Your task to perform on an android device: Add "logitech g903" to the cart on target, then select checkout. Image 0: 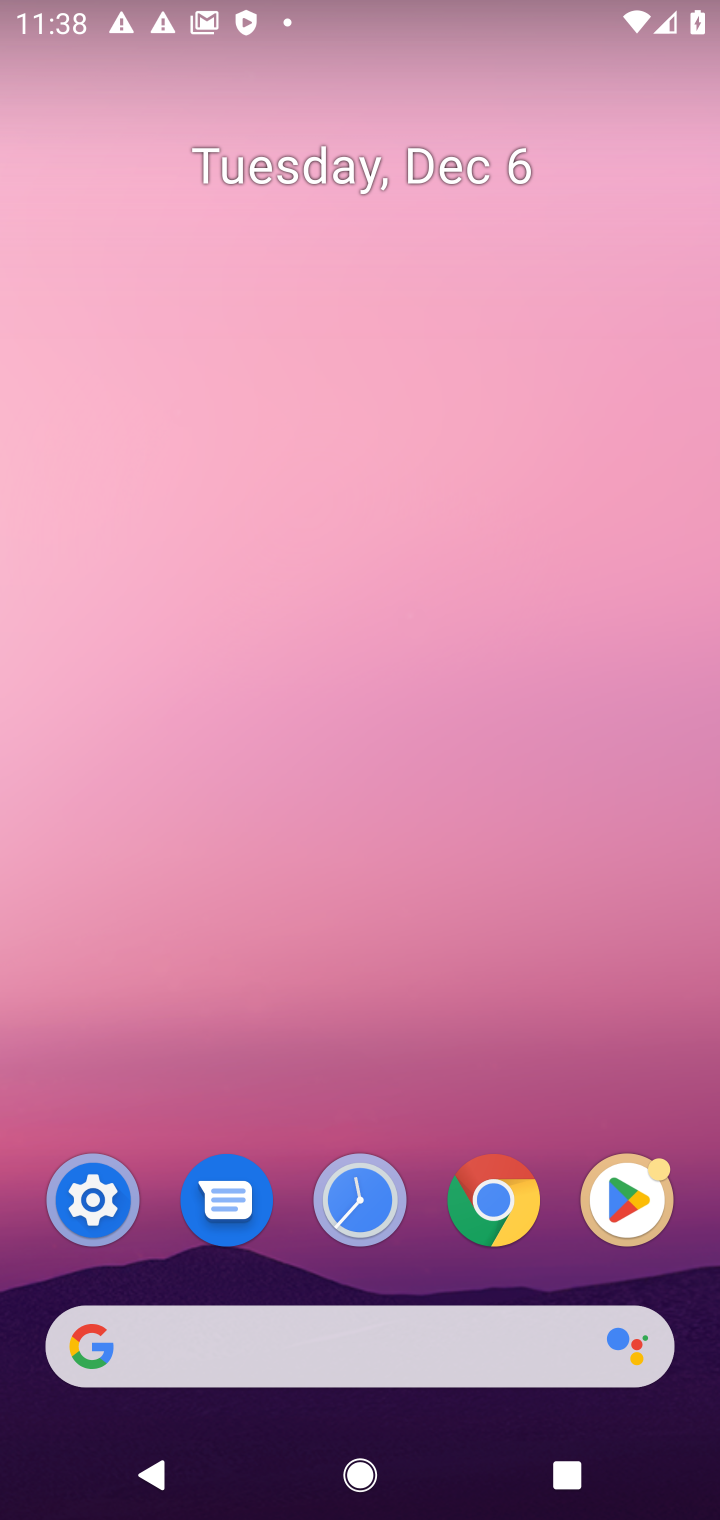
Step 0: click (316, 1365)
Your task to perform on an android device: Add "logitech g903" to the cart on target, then select checkout. Image 1: 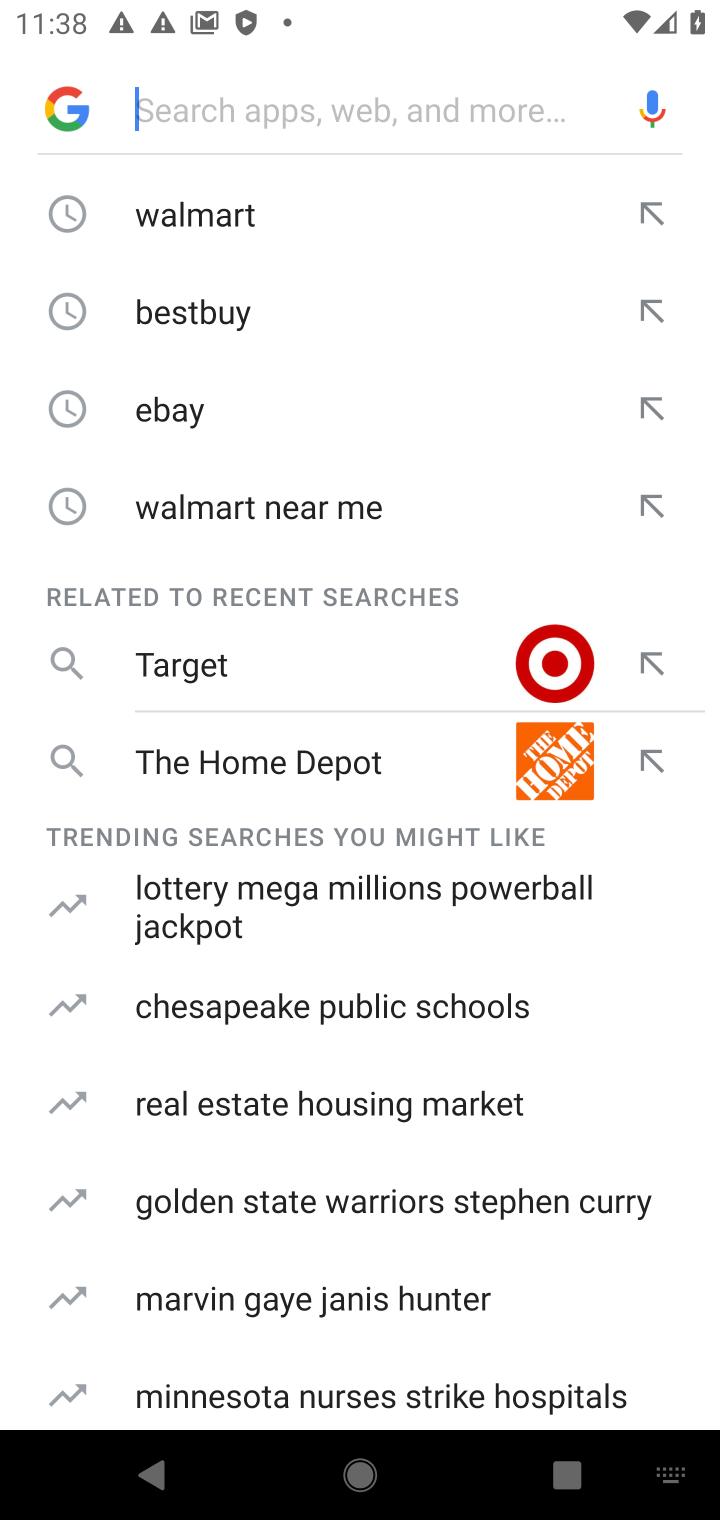
Step 1: type "target"
Your task to perform on an android device: Add "logitech g903" to the cart on target, then select checkout. Image 2: 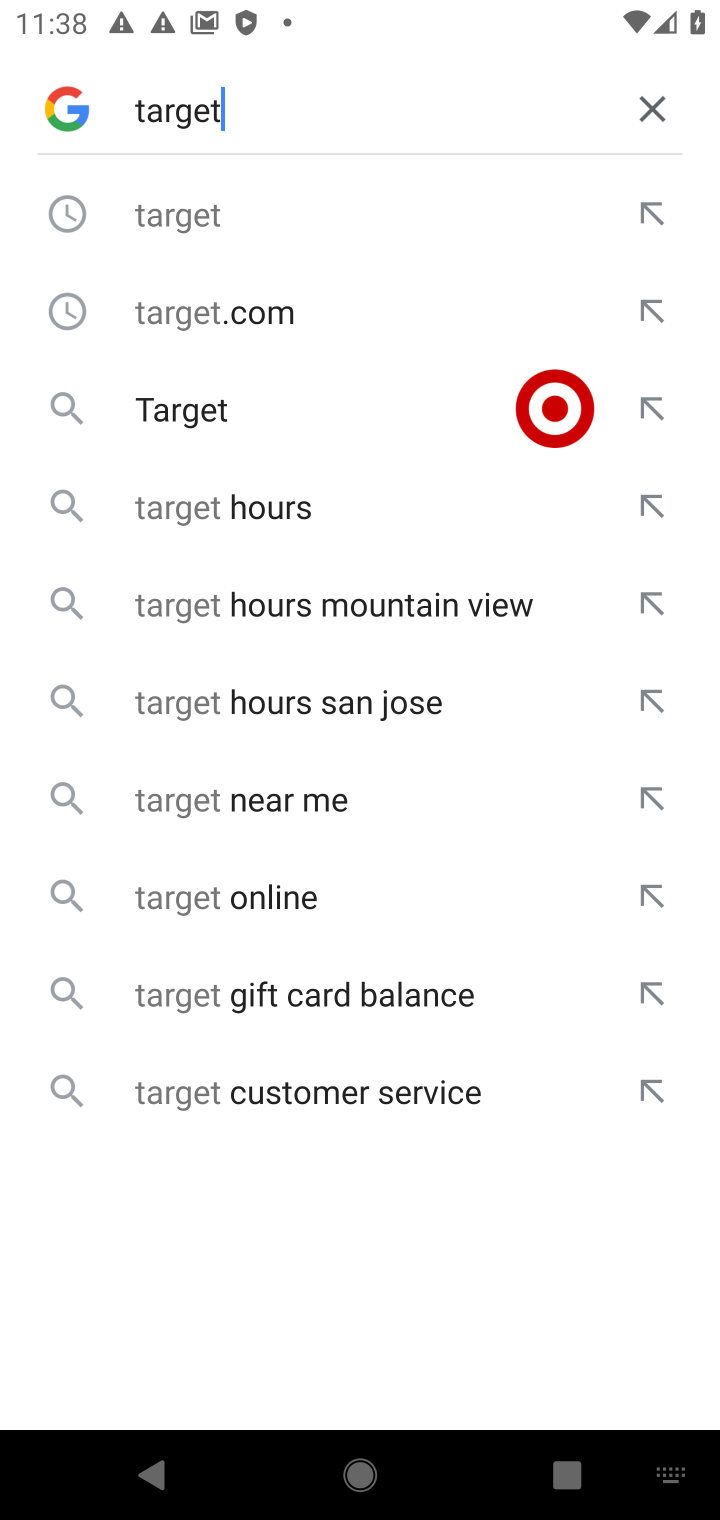
Step 2: click (357, 422)
Your task to perform on an android device: Add "logitech g903" to the cart on target, then select checkout. Image 3: 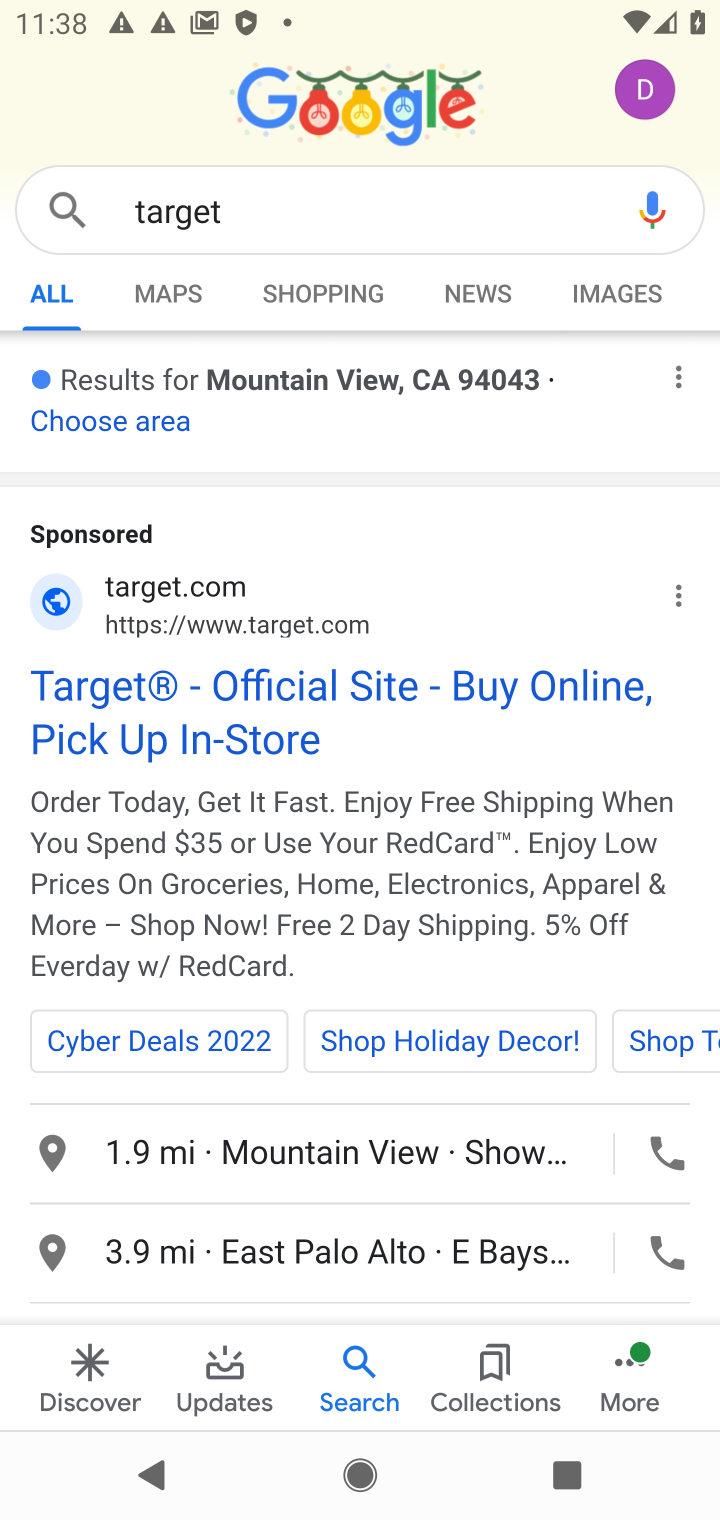
Step 3: click (260, 667)
Your task to perform on an android device: Add "logitech g903" to the cart on target, then select checkout. Image 4: 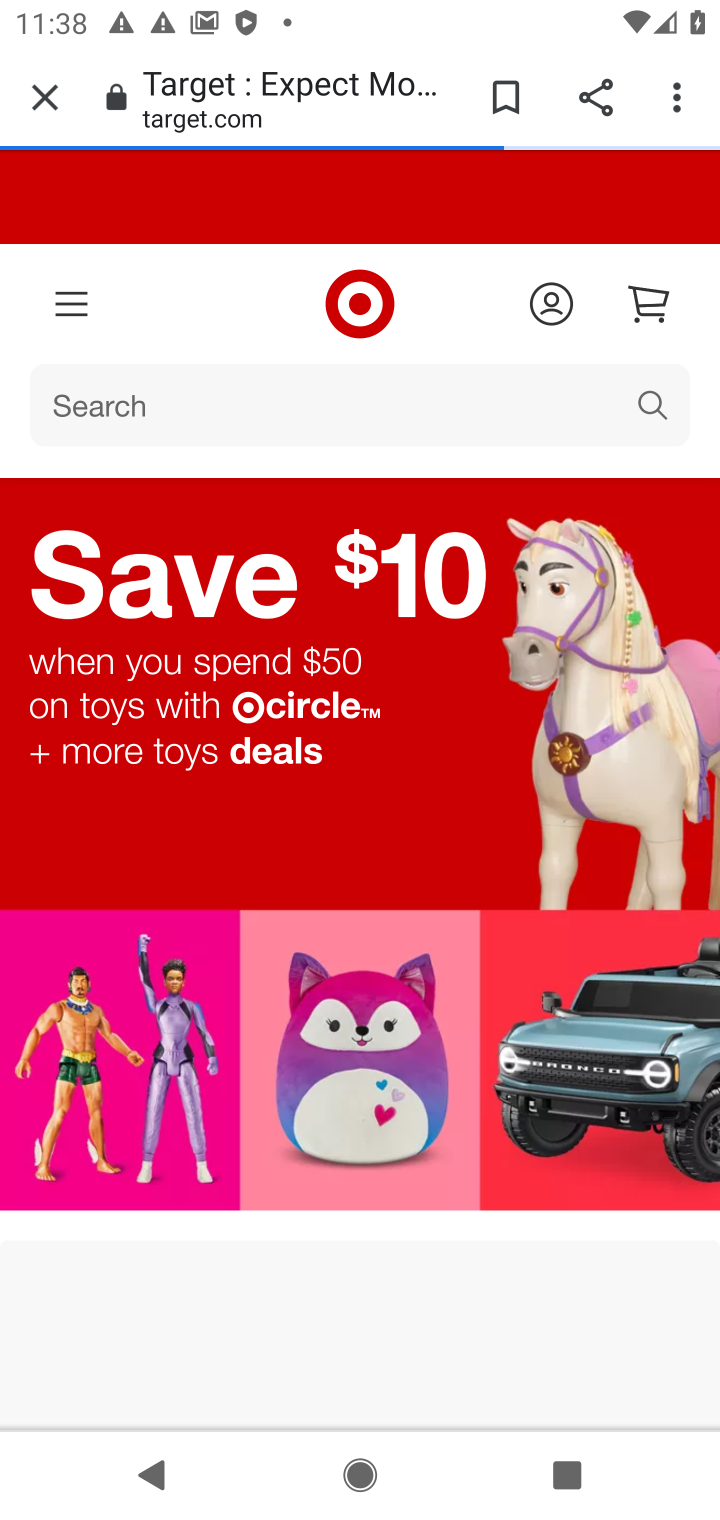
Step 4: click (222, 407)
Your task to perform on an android device: Add "logitech g903" to the cart on target, then select checkout. Image 5: 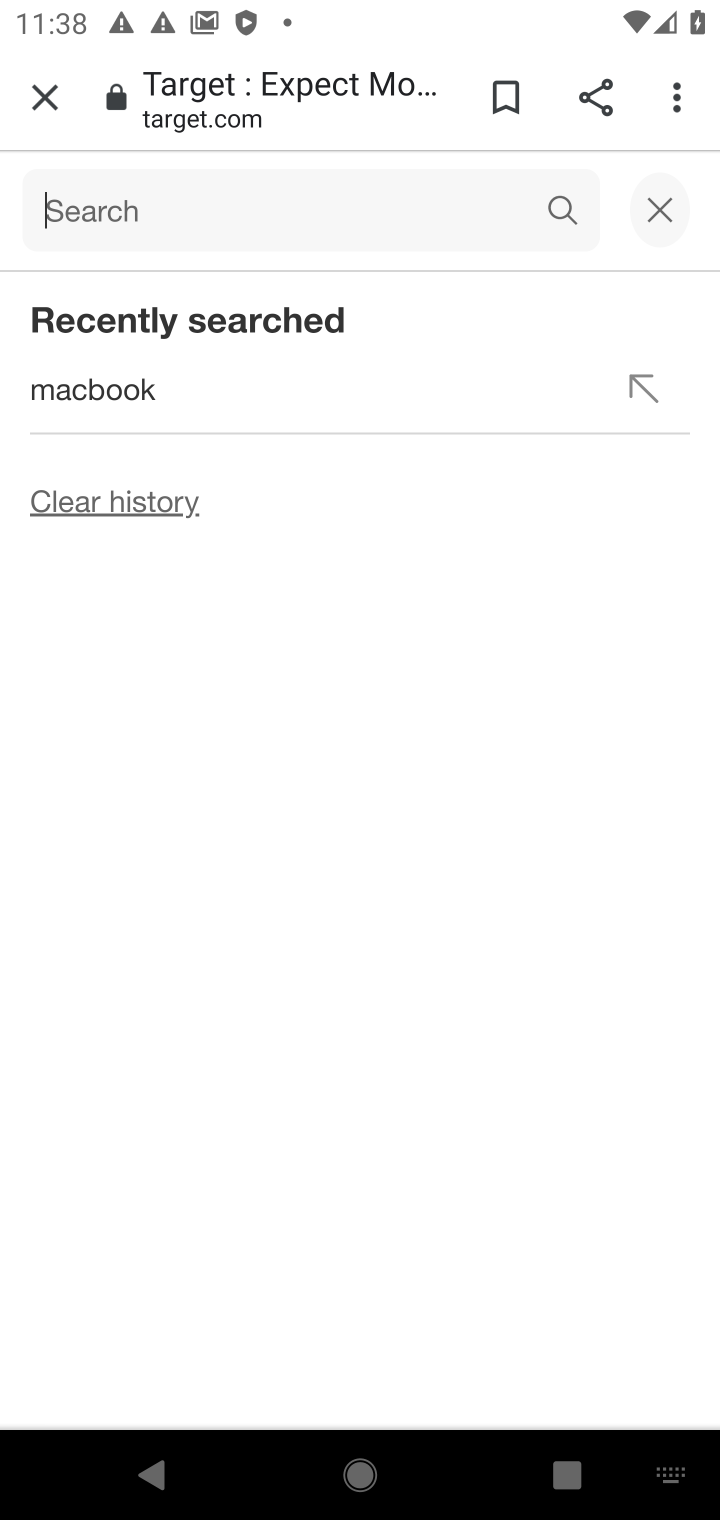
Step 5: type "logitech g903"
Your task to perform on an android device: Add "logitech g903" to the cart on target, then select checkout. Image 6: 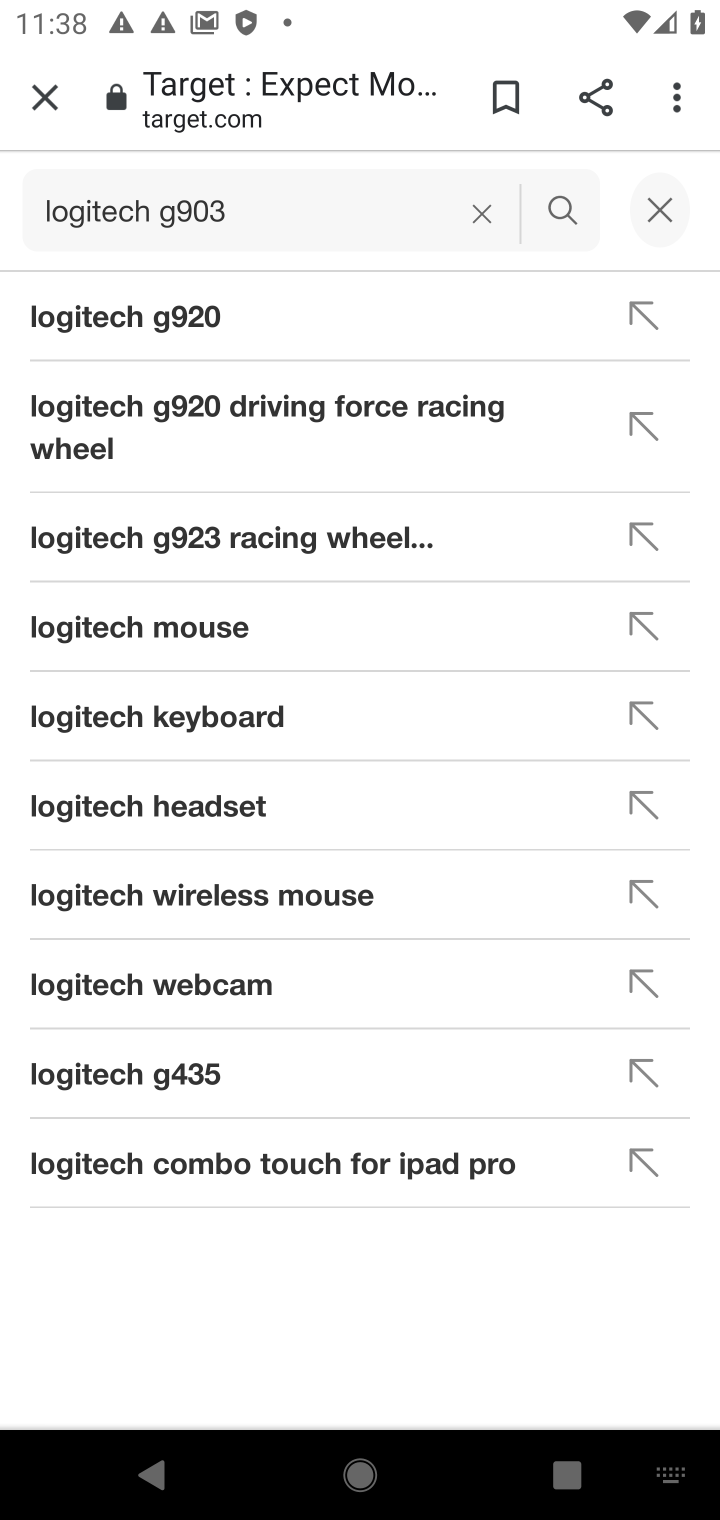
Step 6: click (563, 224)
Your task to perform on an android device: Add "logitech g903" to the cart on target, then select checkout. Image 7: 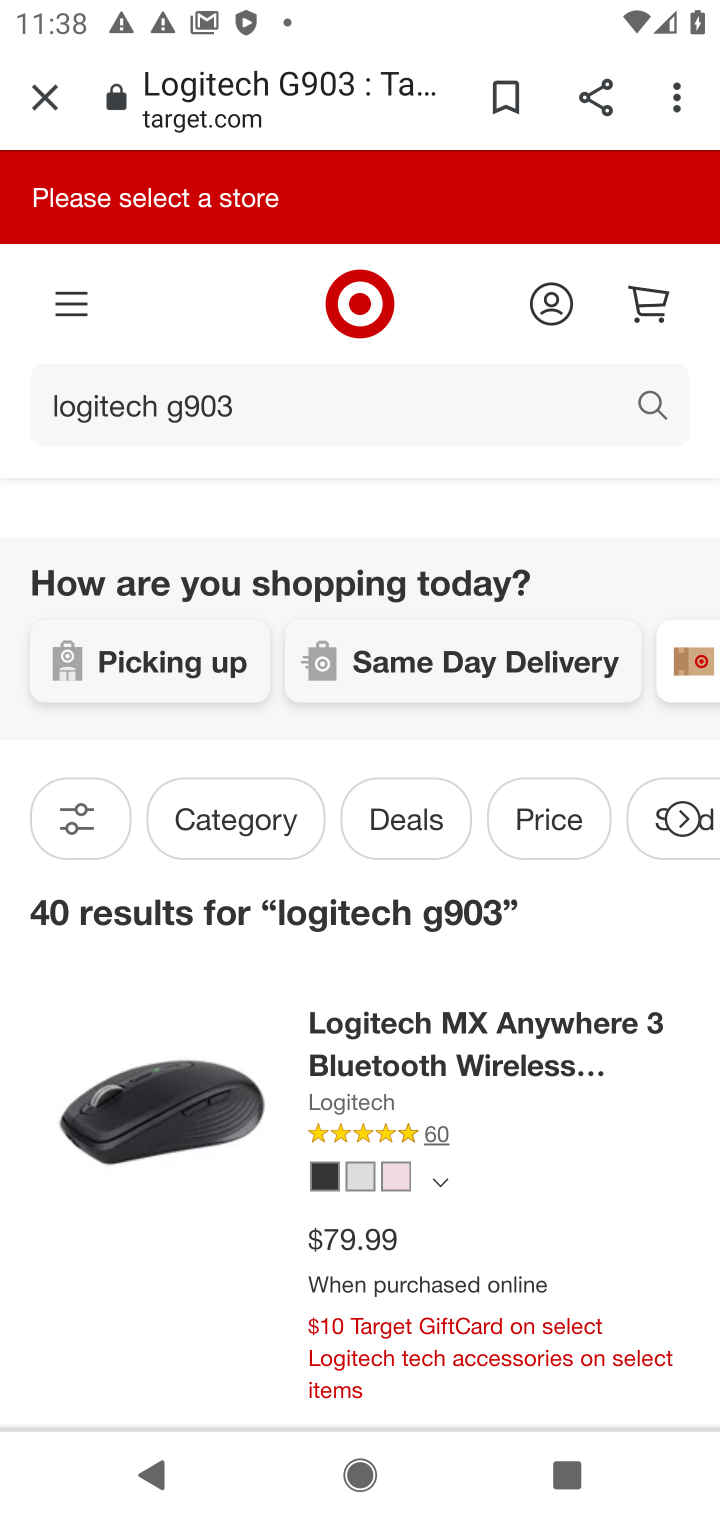
Step 7: drag from (595, 1250) to (530, 686)
Your task to perform on an android device: Add "logitech g903" to the cart on target, then select checkout. Image 8: 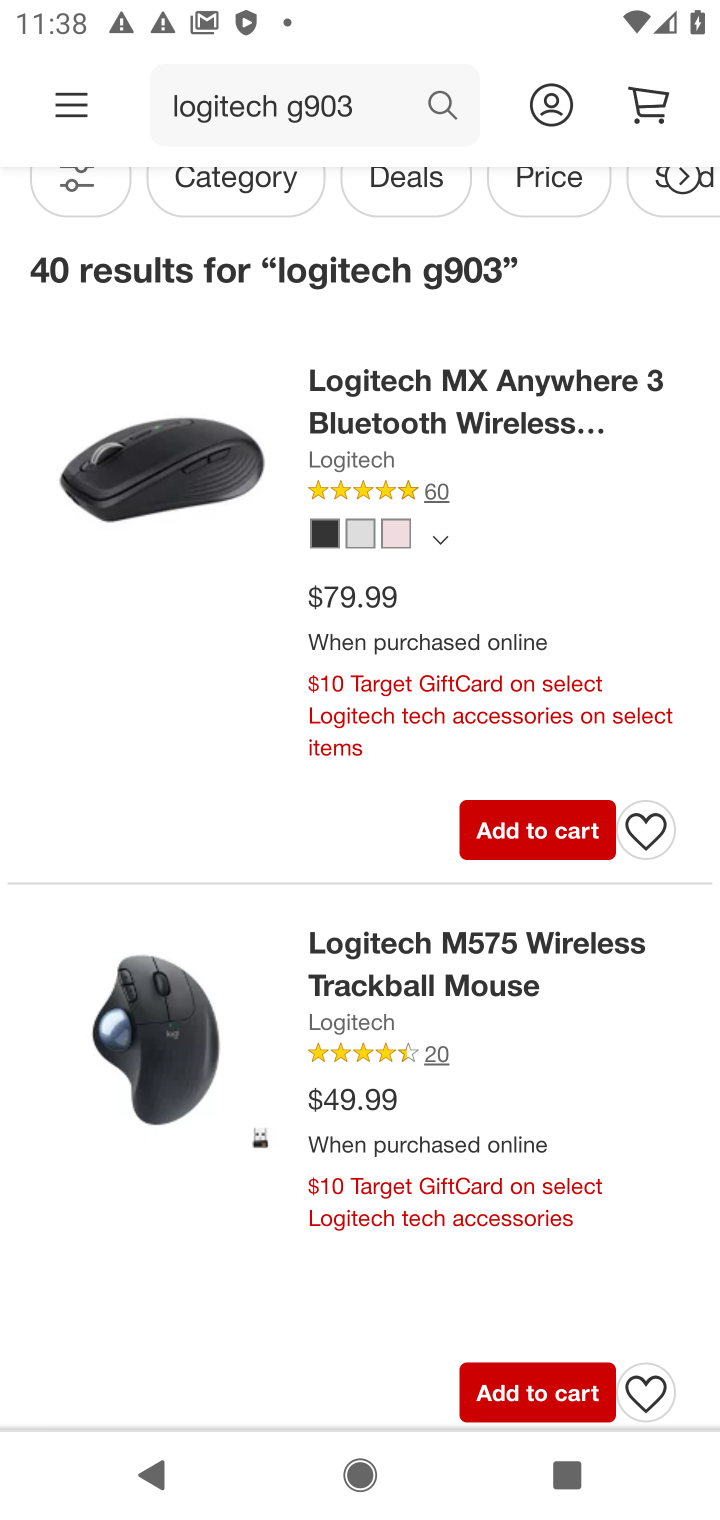
Step 8: click (528, 828)
Your task to perform on an android device: Add "logitech g903" to the cart on target, then select checkout. Image 9: 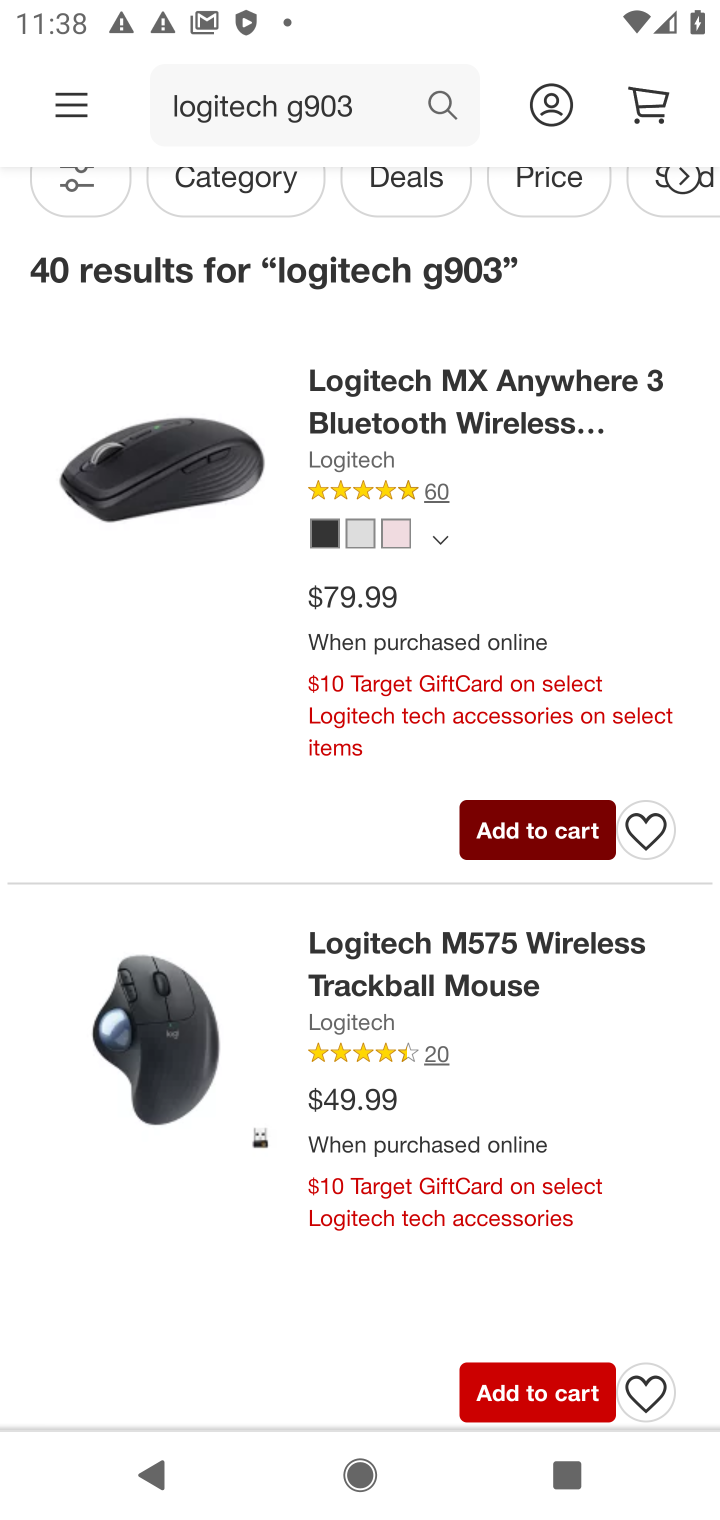
Step 9: task complete